Your task to perform on an android device: Open display settings Image 0: 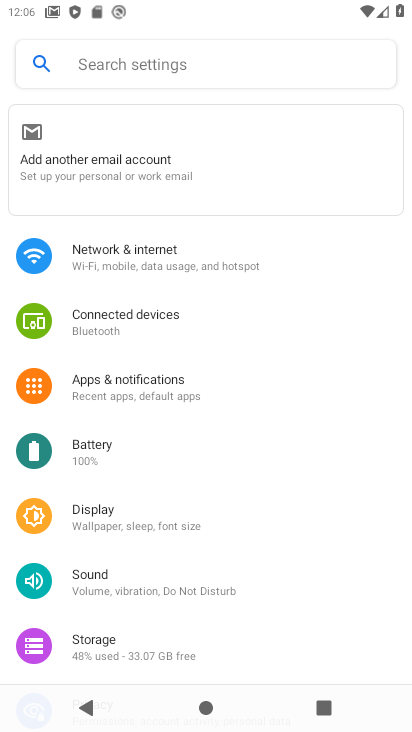
Step 0: click (94, 510)
Your task to perform on an android device: Open display settings Image 1: 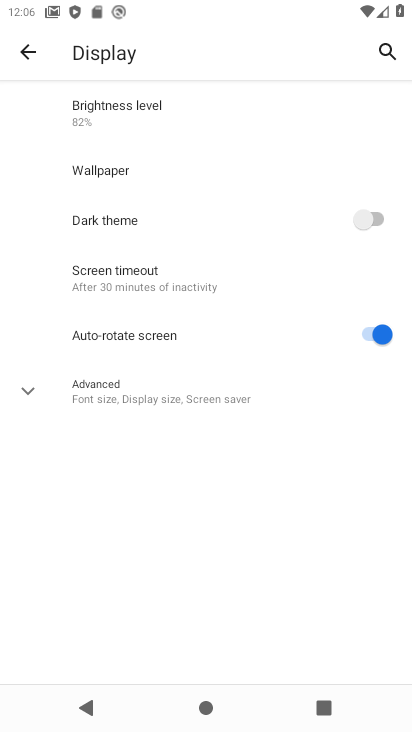
Step 1: task complete